Your task to perform on an android device: turn notification dots on Image 0: 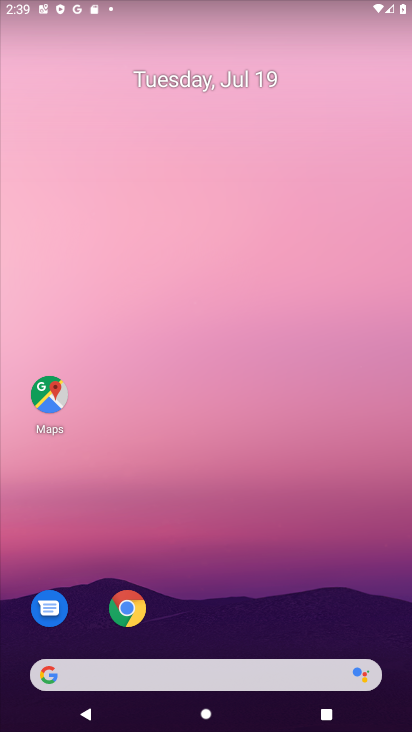
Step 0: drag from (258, 590) to (232, 134)
Your task to perform on an android device: turn notification dots on Image 1: 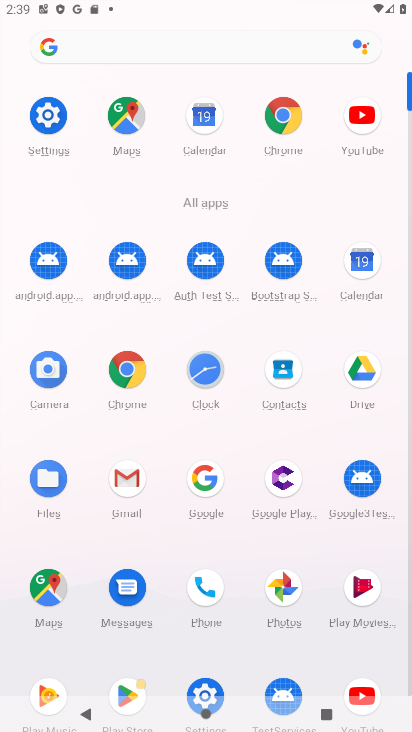
Step 1: click (45, 118)
Your task to perform on an android device: turn notification dots on Image 2: 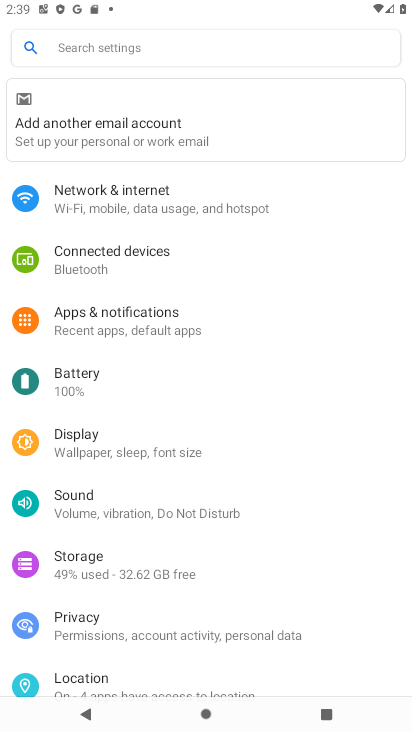
Step 2: click (120, 307)
Your task to perform on an android device: turn notification dots on Image 3: 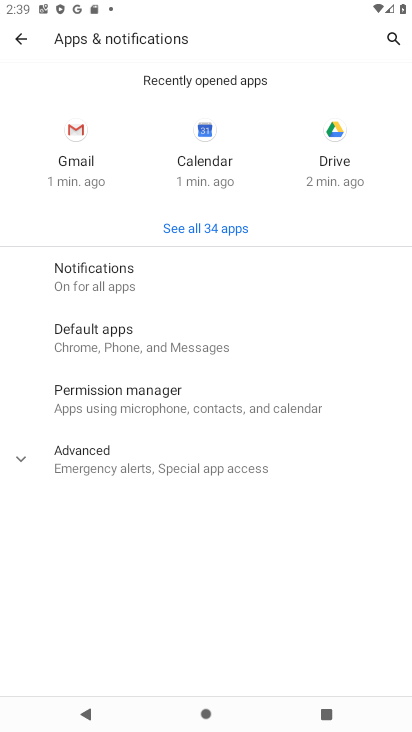
Step 3: click (110, 286)
Your task to perform on an android device: turn notification dots on Image 4: 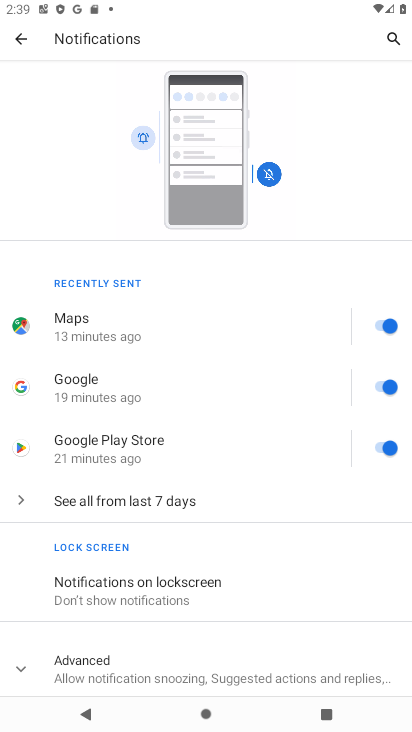
Step 4: drag from (212, 586) to (244, 183)
Your task to perform on an android device: turn notification dots on Image 5: 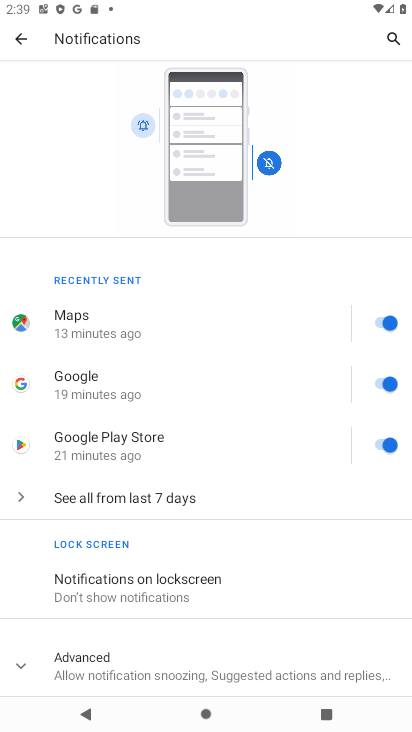
Step 5: click (191, 664)
Your task to perform on an android device: turn notification dots on Image 6: 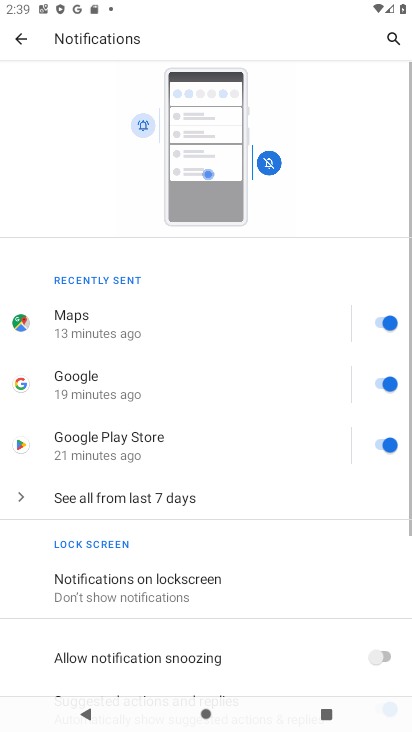
Step 6: task complete